Your task to perform on an android device: find which apps use the phone's location Image 0: 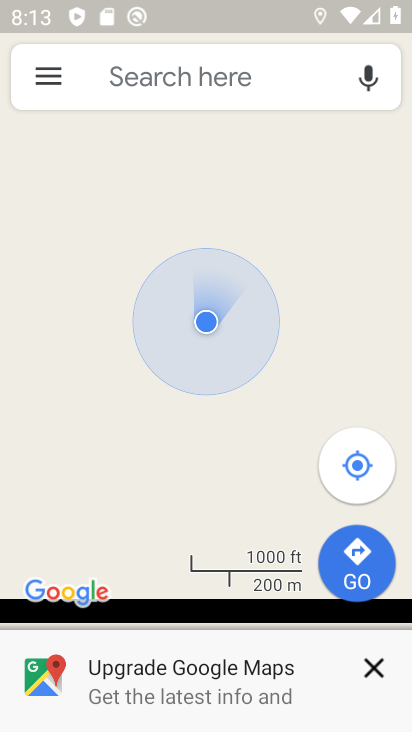
Step 0: press home button
Your task to perform on an android device: find which apps use the phone's location Image 1: 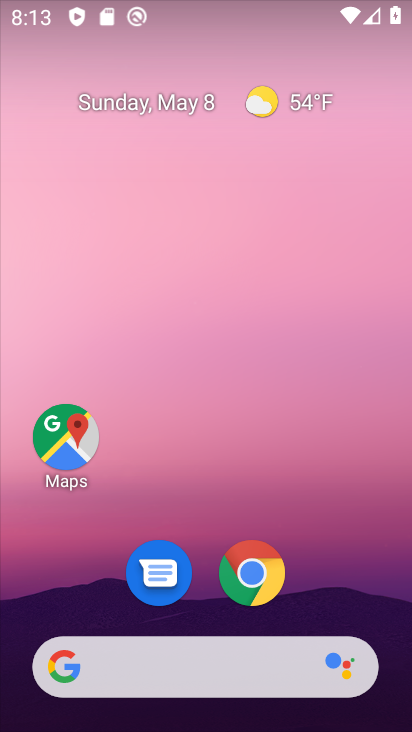
Step 1: drag from (233, 719) to (222, 139)
Your task to perform on an android device: find which apps use the phone's location Image 2: 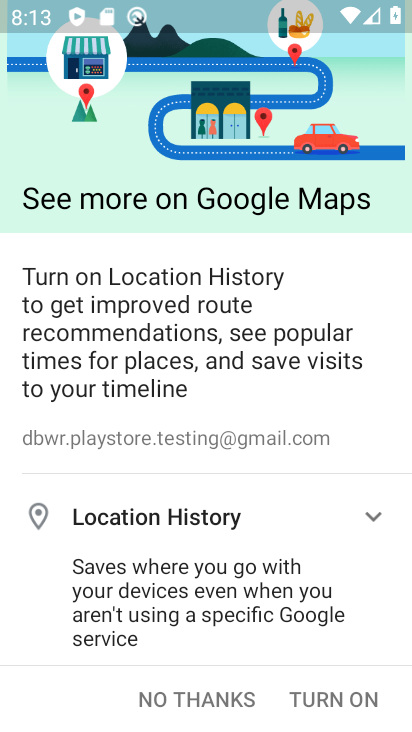
Step 2: press home button
Your task to perform on an android device: find which apps use the phone's location Image 3: 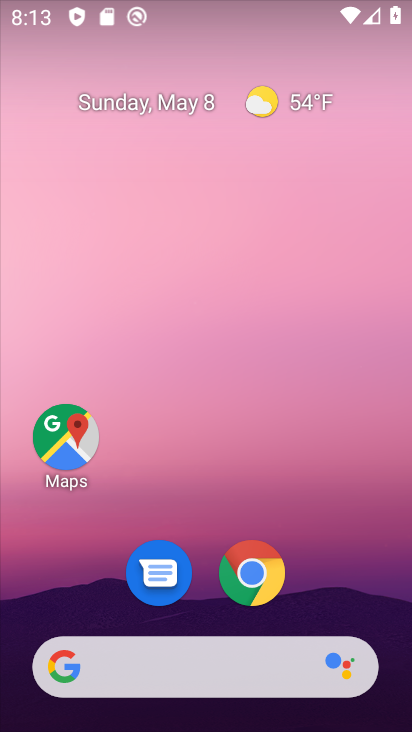
Step 3: drag from (219, 727) to (216, 316)
Your task to perform on an android device: find which apps use the phone's location Image 4: 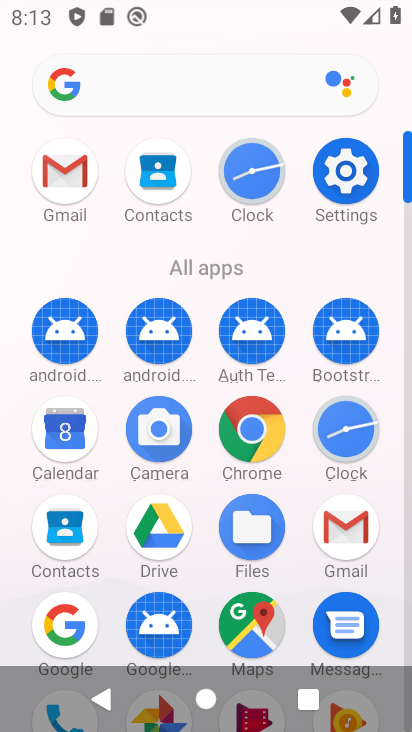
Step 4: click (341, 165)
Your task to perform on an android device: find which apps use the phone's location Image 5: 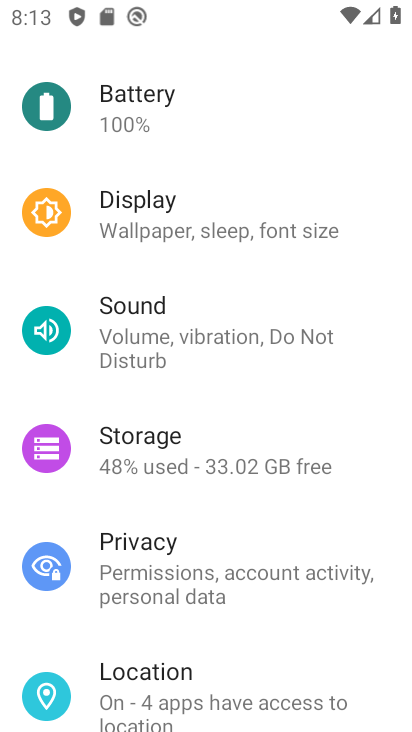
Step 5: click (152, 675)
Your task to perform on an android device: find which apps use the phone's location Image 6: 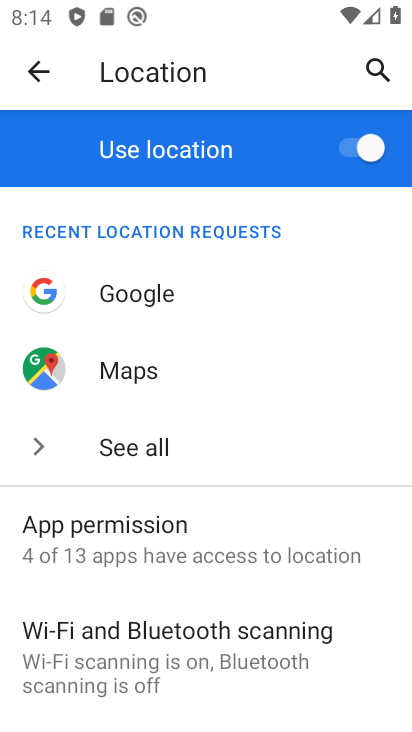
Step 6: drag from (239, 659) to (244, 469)
Your task to perform on an android device: find which apps use the phone's location Image 7: 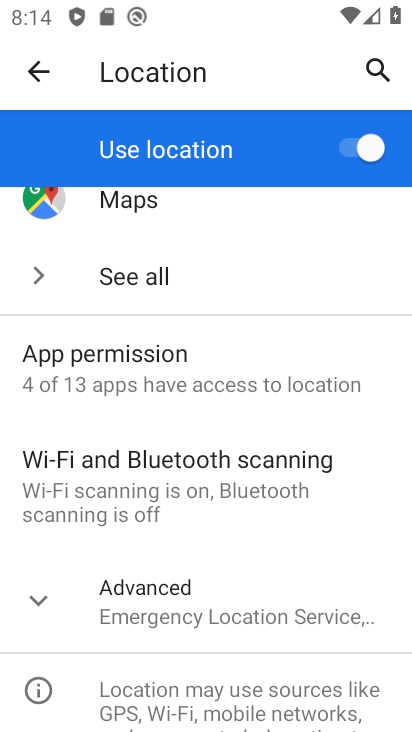
Step 7: drag from (263, 328) to (261, 497)
Your task to perform on an android device: find which apps use the phone's location Image 8: 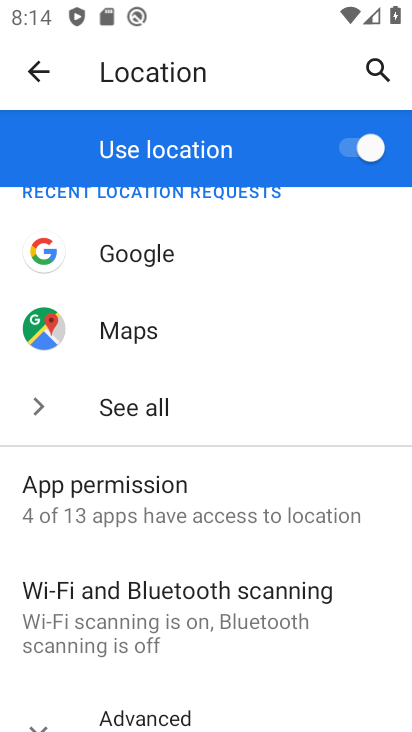
Step 8: click (131, 502)
Your task to perform on an android device: find which apps use the phone's location Image 9: 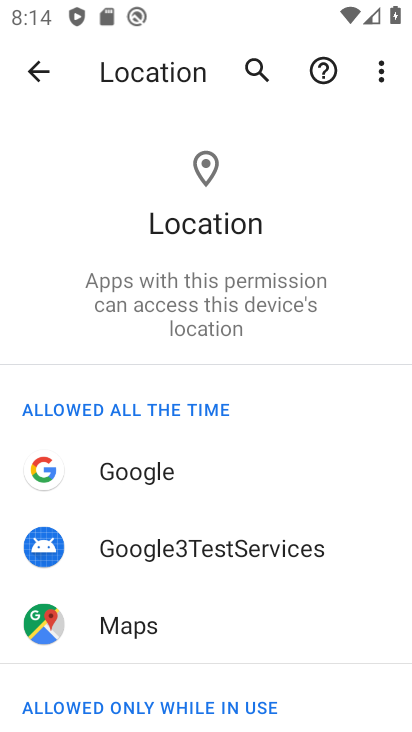
Step 9: task complete